Your task to perform on an android device: Show me popular videos on Youtube Image 0: 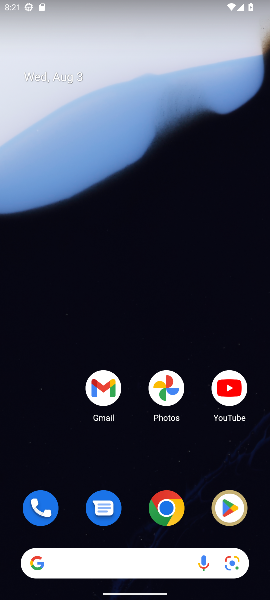
Step 0: click (223, 395)
Your task to perform on an android device: Show me popular videos on Youtube Image 1: 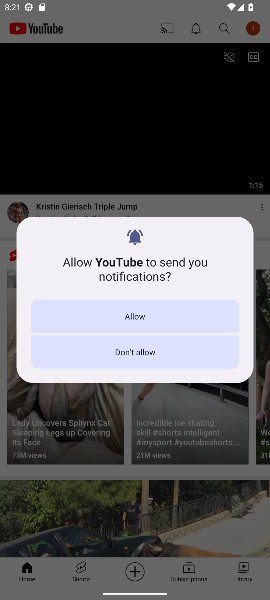
Step 1: click (134, 323)
Your task to perform on an android device: Show me popular videos on Youtube Image 2: 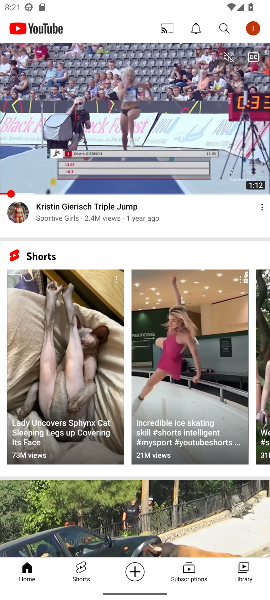
Step 2: press home button
Your task to perform on an android device: Show me popular videos on Youtube Image 3: 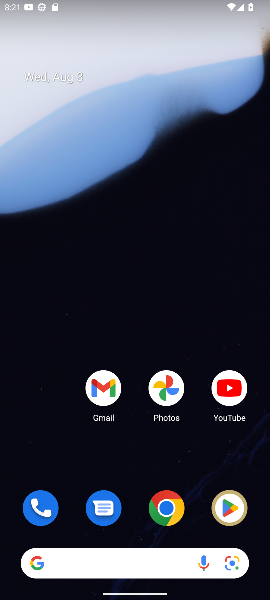
Step 3: click (230, 396)
Your task to perform on an android device: Show me popular videos on Youtube Image 4: 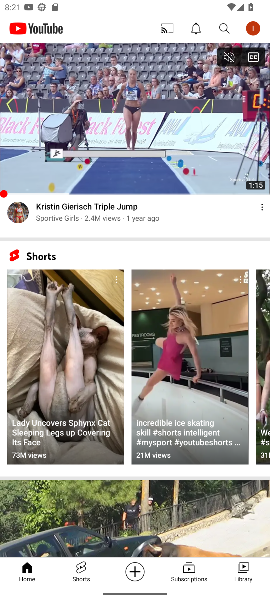
Step 4: click (82, 573)
Your task to perform on an android device: Show me popular videos on Youtube Image 5: 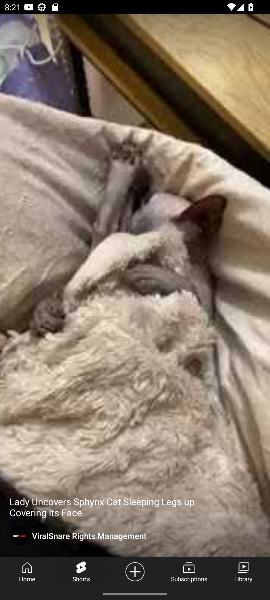
Step 5: click (246, 576)
Your task to perform on an android device: Show me popular videos on Youtube Image 6: 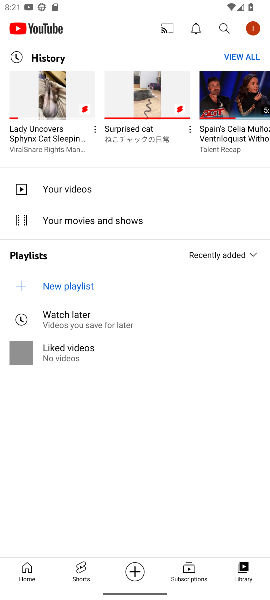
Step 6: click (232, 62)
Your task to perform on an android device: Show me popular videos on Youtube Image 7: 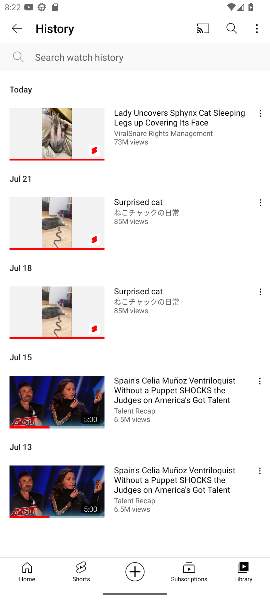
Step 7: task complete